Your task to perform on an android device: turn off smart reply in the gmail app Image 0: 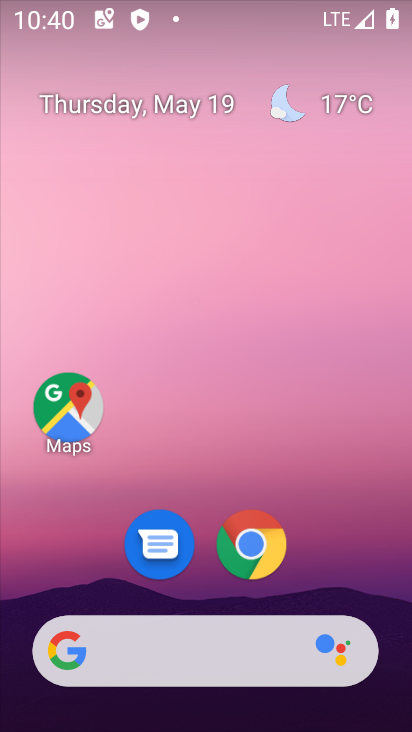
Step 0: drag from (213, 689) to (299, 184)
Your task to perform on an android device: turn off smart reply in the gmail app Image 1: 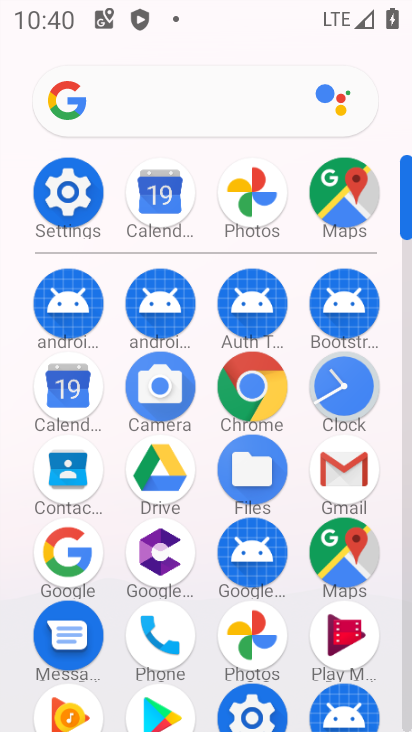
Step 1: click (336, 476)
Your task to perform on an android device: turn off smart reply in the gmail app Image 2: 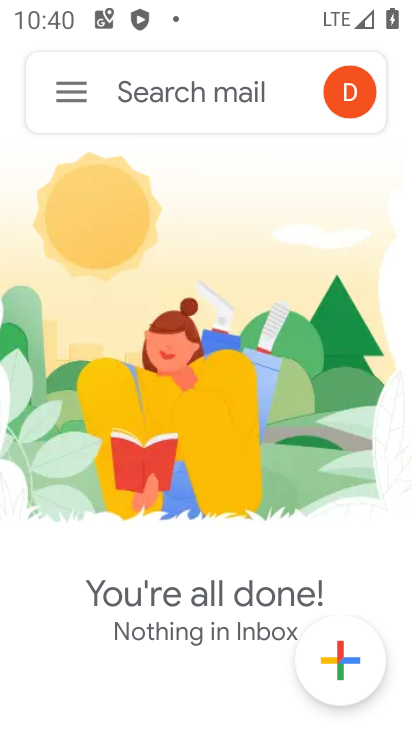
Step 2: click (71, 90)
Your task to perform on an android device: turn off smart reply in the gmail app Image 3: 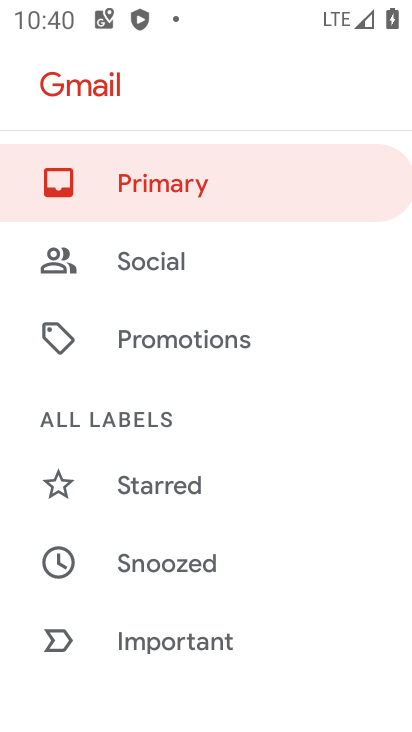
Step 3: drag from (168, 600) to (268, 143)
Your task to perform on an android device: turn off smart reply in the gmail app Image 4: 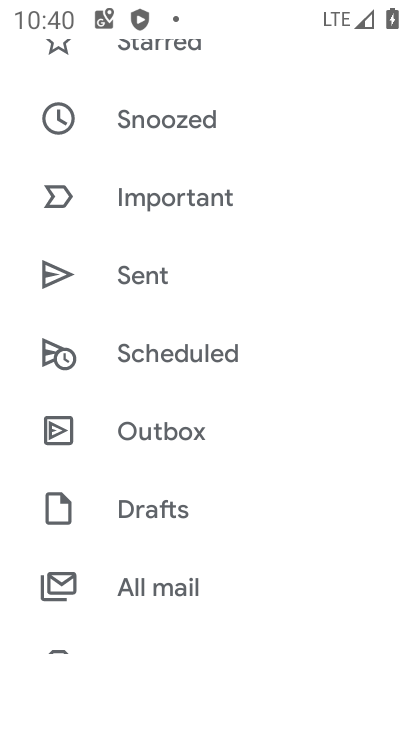
Step 4: drag from (231, 561) to (263, 97)
Your task to perform on an android device: turn off smart reply in the gmail app Image 5: 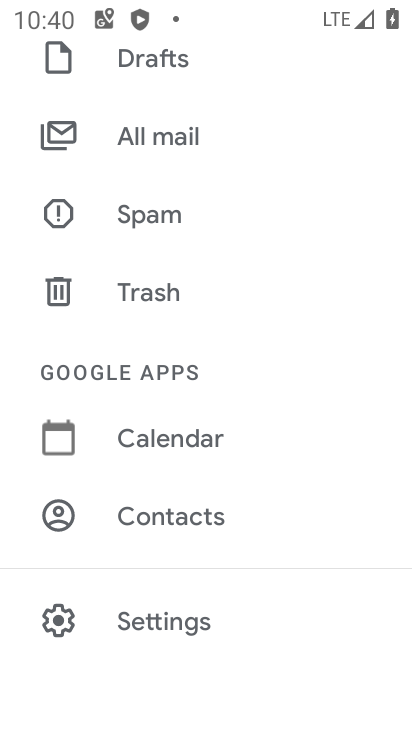
Step 5: click (181, 616)
Your task to perform on an android device: turn off smart reply in the gmail app Image 6: 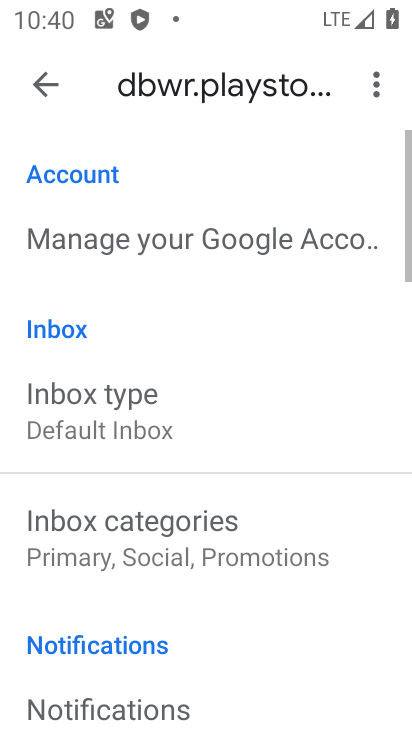
Step 6: drag from (186, 623) to (269, 36)
Your task to perform on an android device: turn off smart reply in the gmail app Image 7: 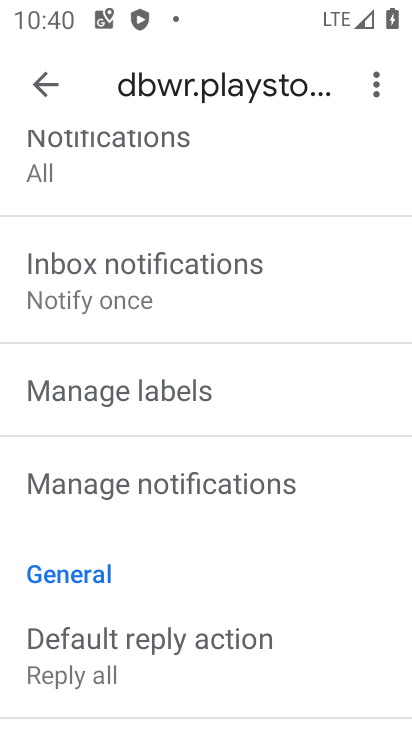
Step 7: drag from (198, 594) to (173, 97)
Your task to perform on an android device: turn off smart reply in the gmail app Image 8: 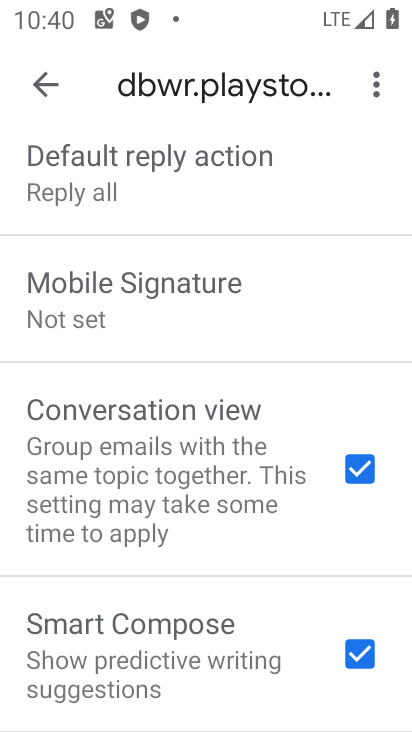
Step 8: drag from (276, 632) to (283, 262)
Your task to perform on an android device: turn off smart reply in the gmail app Image 9: 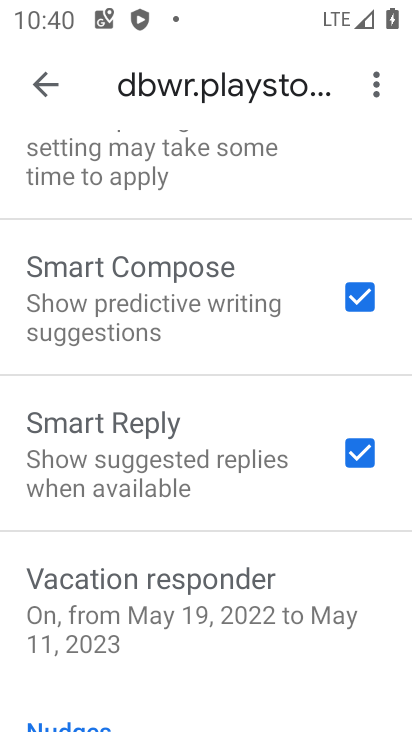
Step 9: click (354, 457)
Your task to perform on an android device: turn off smart reply in the gmail app Image 10: 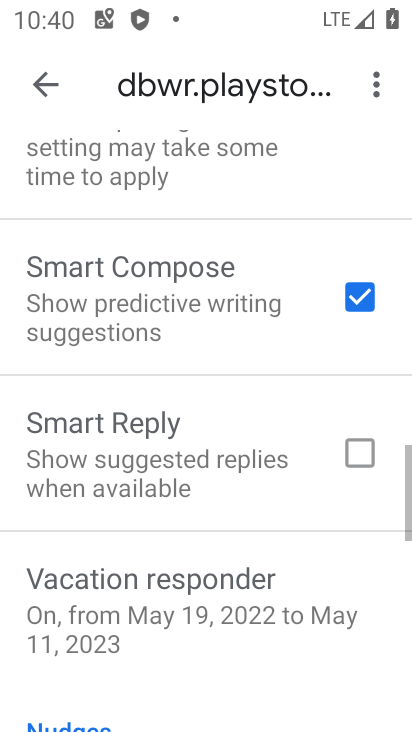
Step 10: task complete